Your task to perform on an android device: open app "Microsoft Authenticator" (install if not already installed) Image 0: 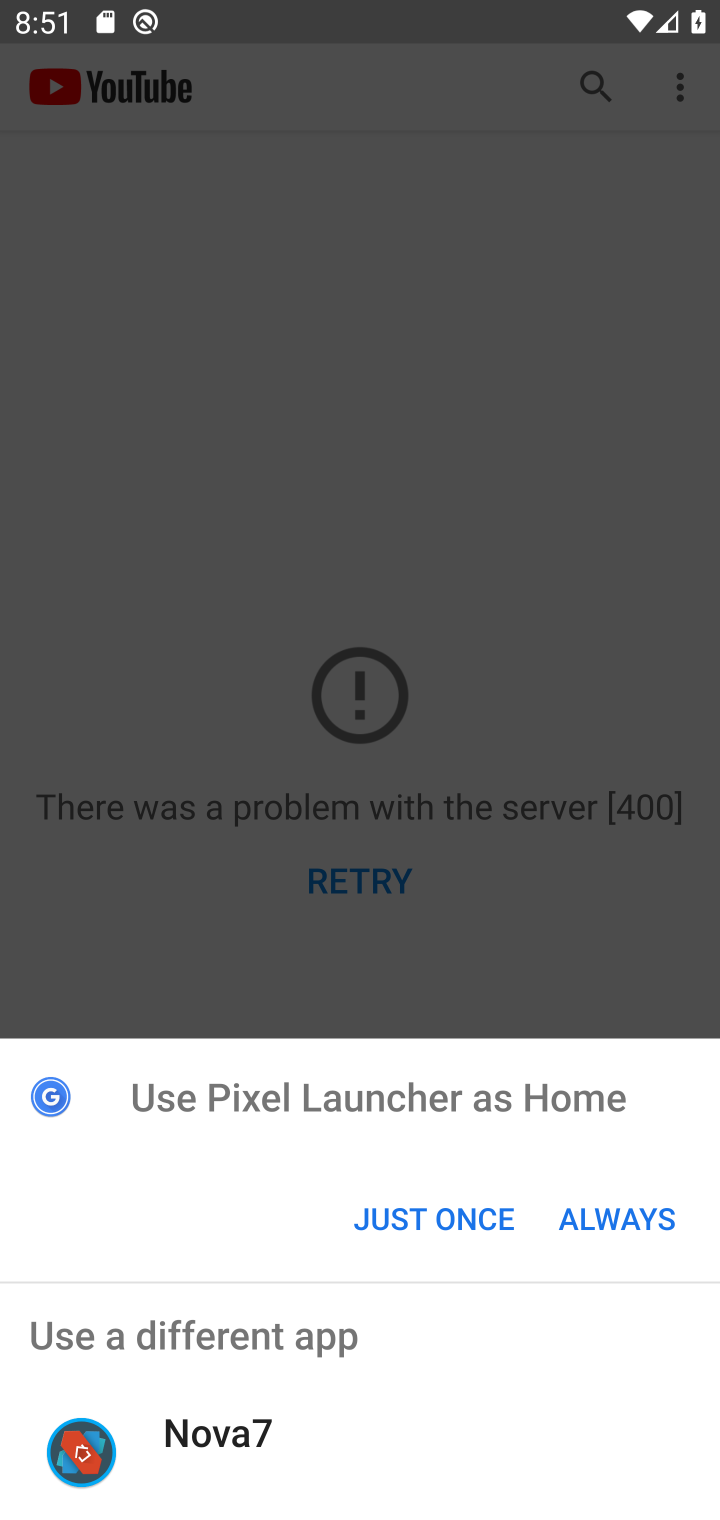
Step 0: click (653, 936)
Your task to perform on an android device: open app "Microsoft Authenticator" (install if not already installed) Image 1: 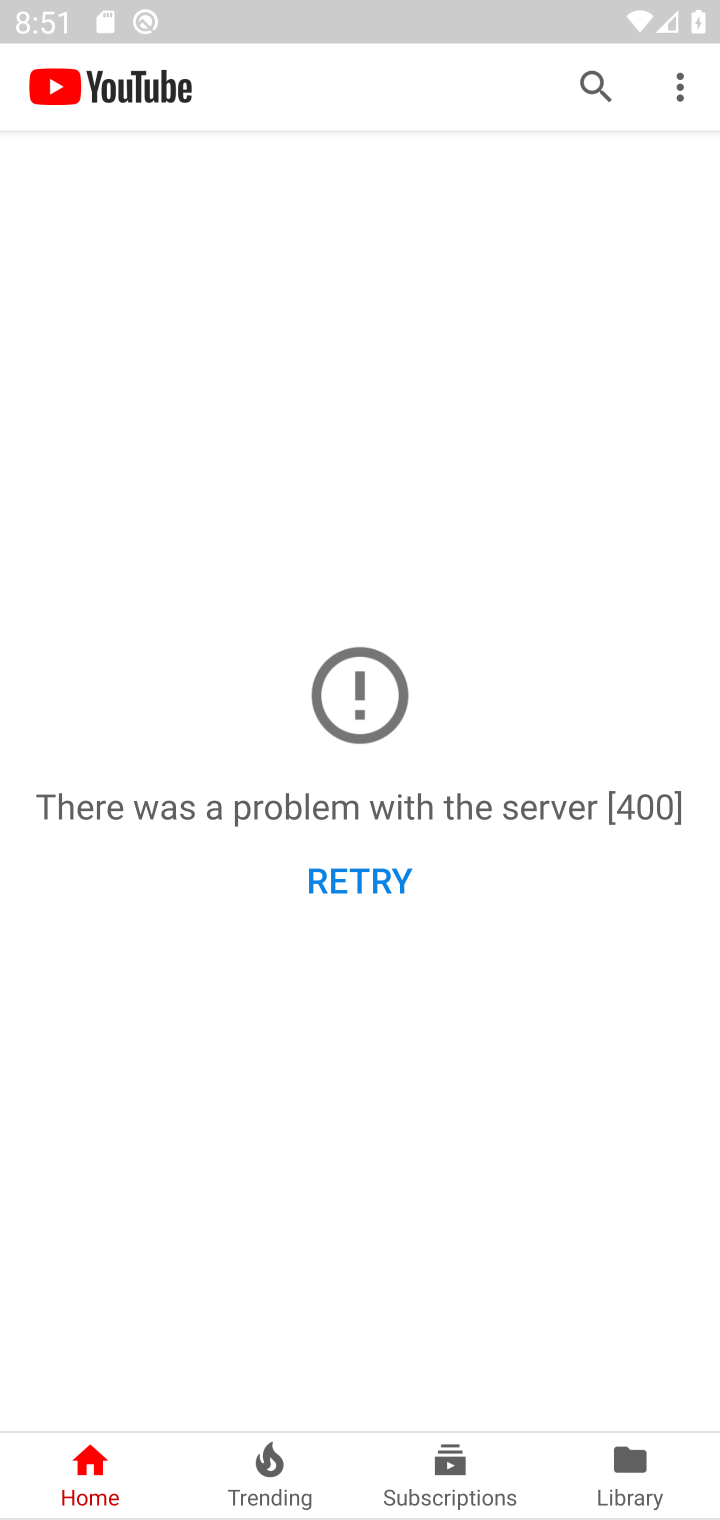
Step 1: press home button
Your task to perform on an android device: open app "Microsoft Authenticator" (install if not already installed) Image 2: 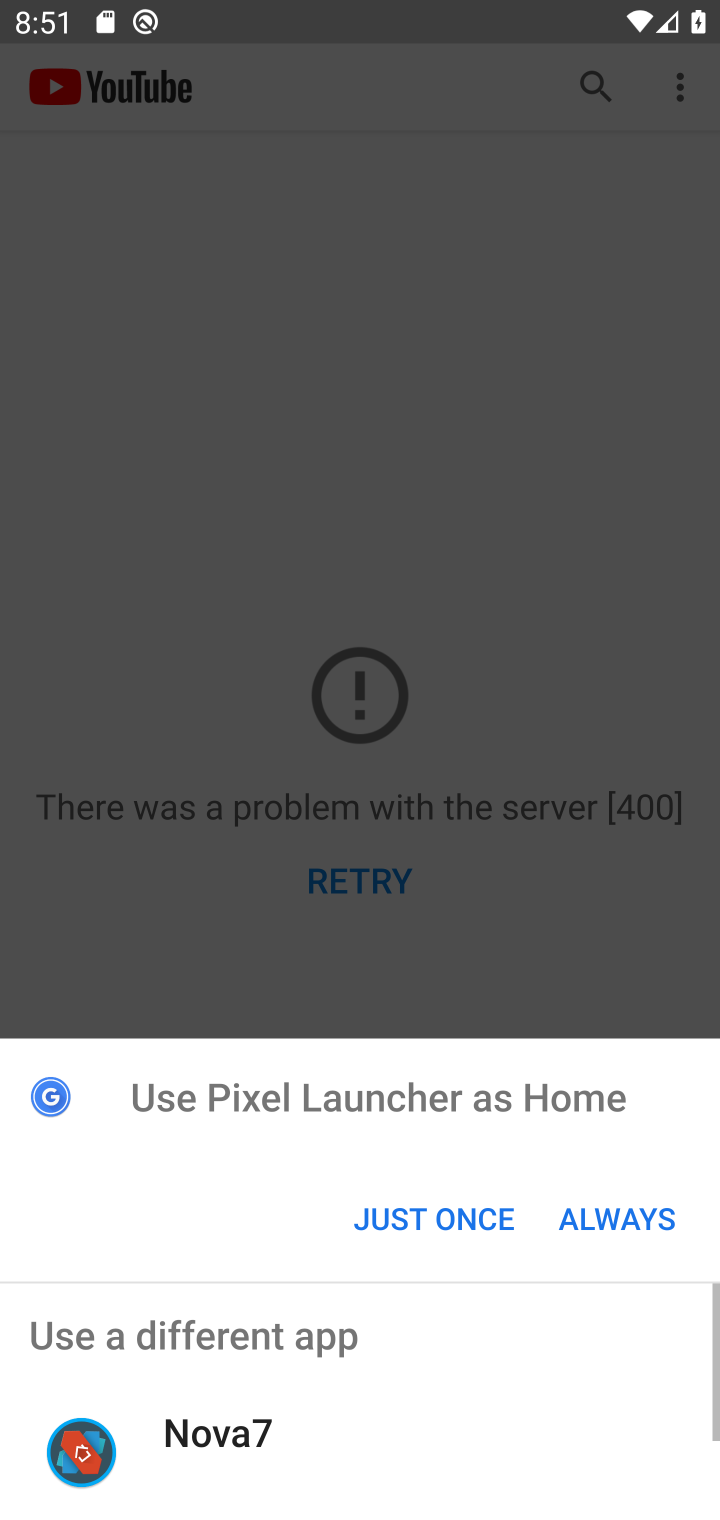
Step 2: press home button
Your task to perform on an android device: open app "Microsoft Authenticator" (install if not already installed) Image 3: 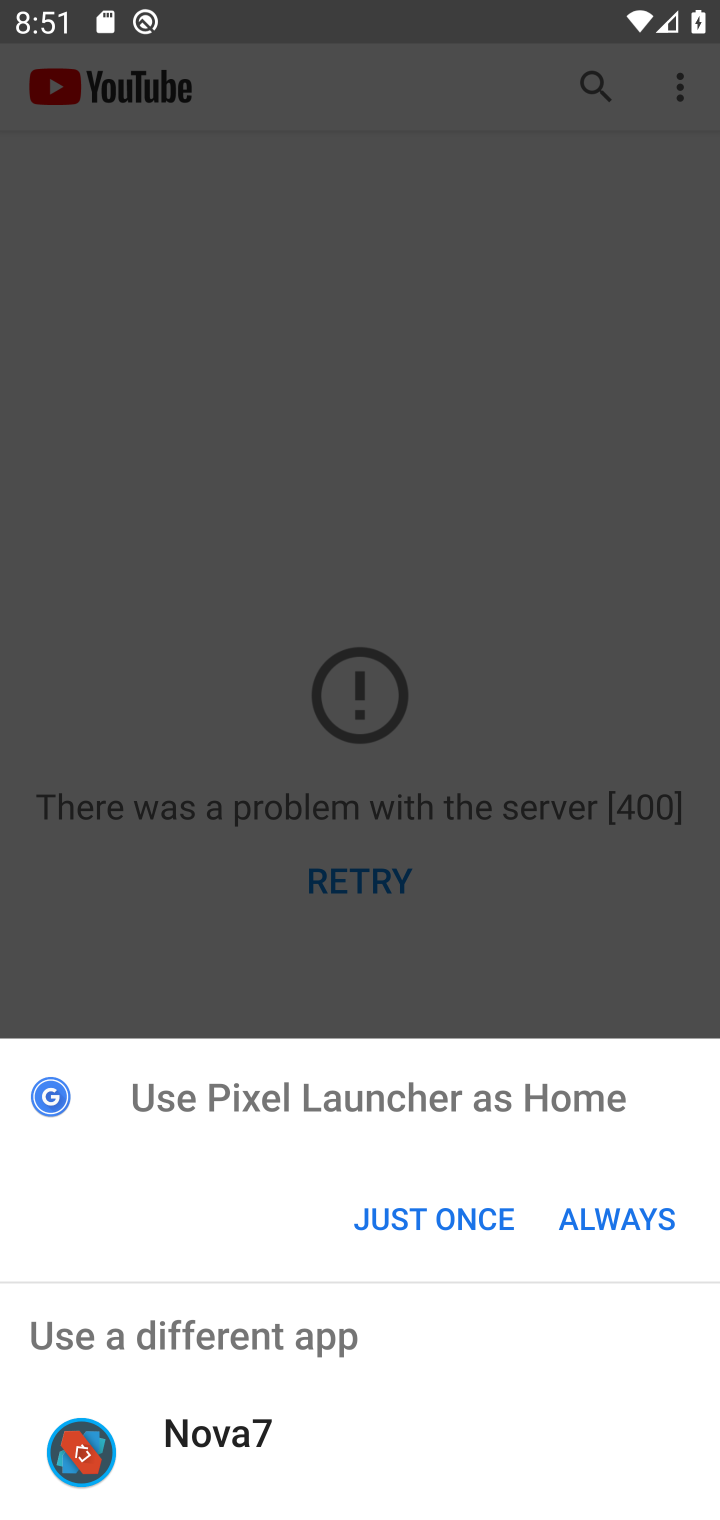
Step 3: press home button
Your task to perform on an android device: open app "Microsoft Authenticator" (install if not already installed) Image 4: 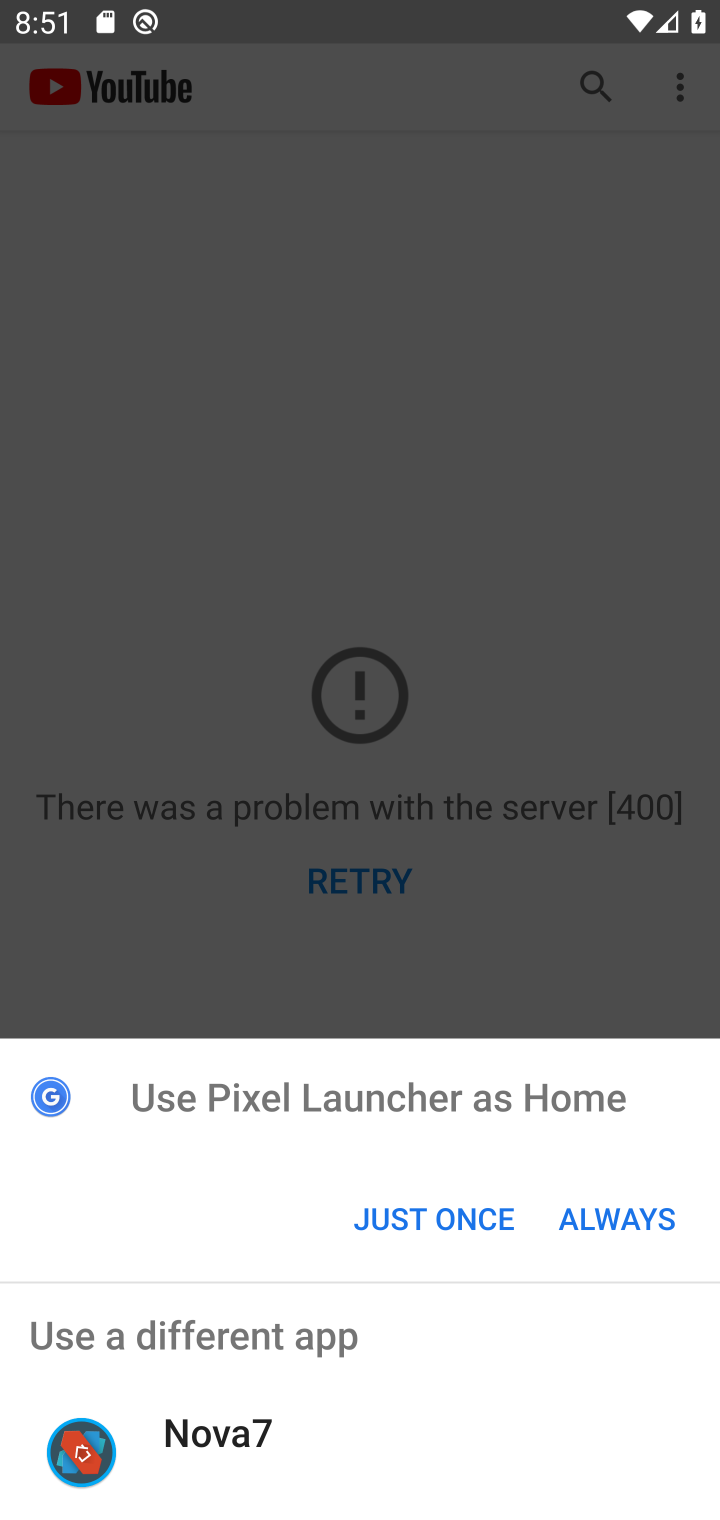
Step 4: click (490, 1222)
Your task to perform on an android device: open app "Microsoft Authenticator" (install if not already installed) Image 5: 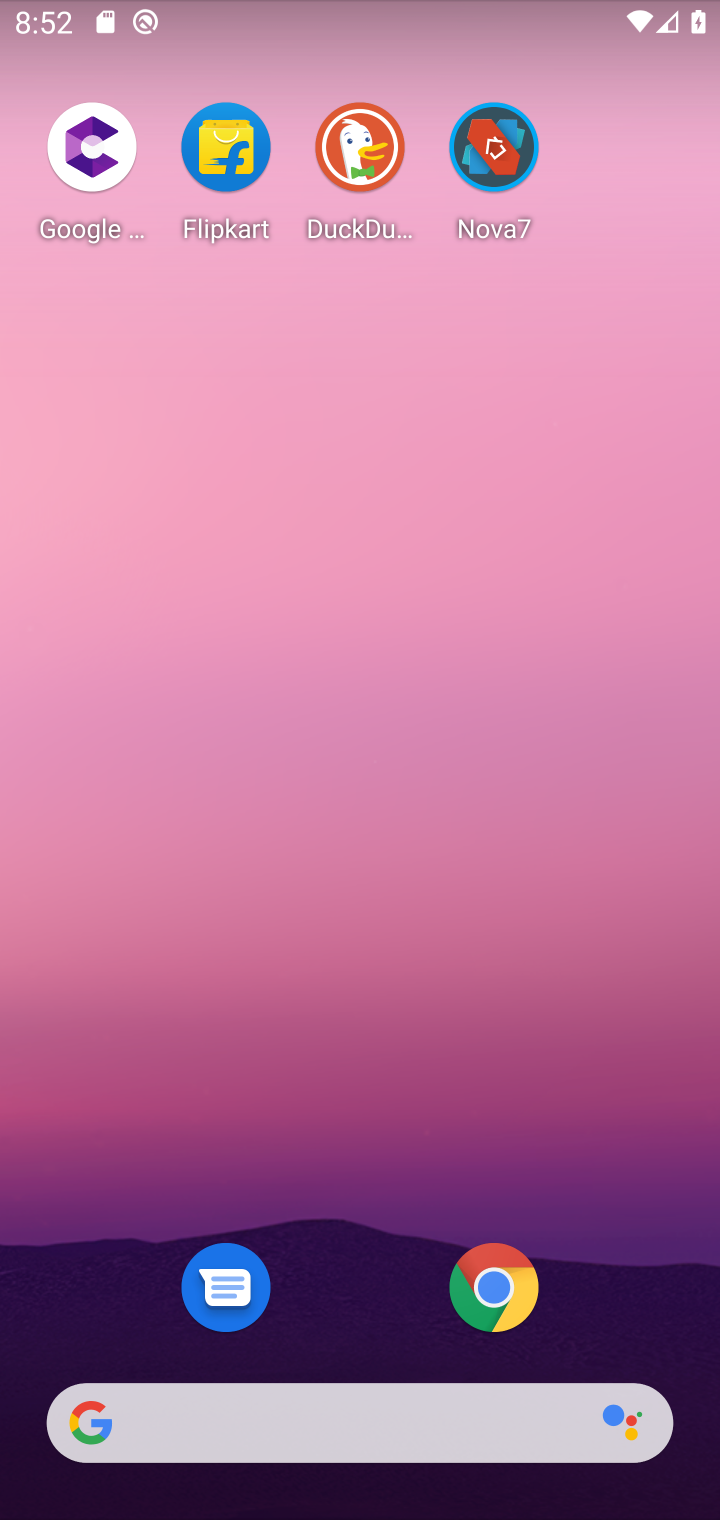
Step 5: drag from (343, 1144) to (307, 199)
Your task to perform on an android device: open app "Microsoft Authenticator" (install if not already installed) Image 6: 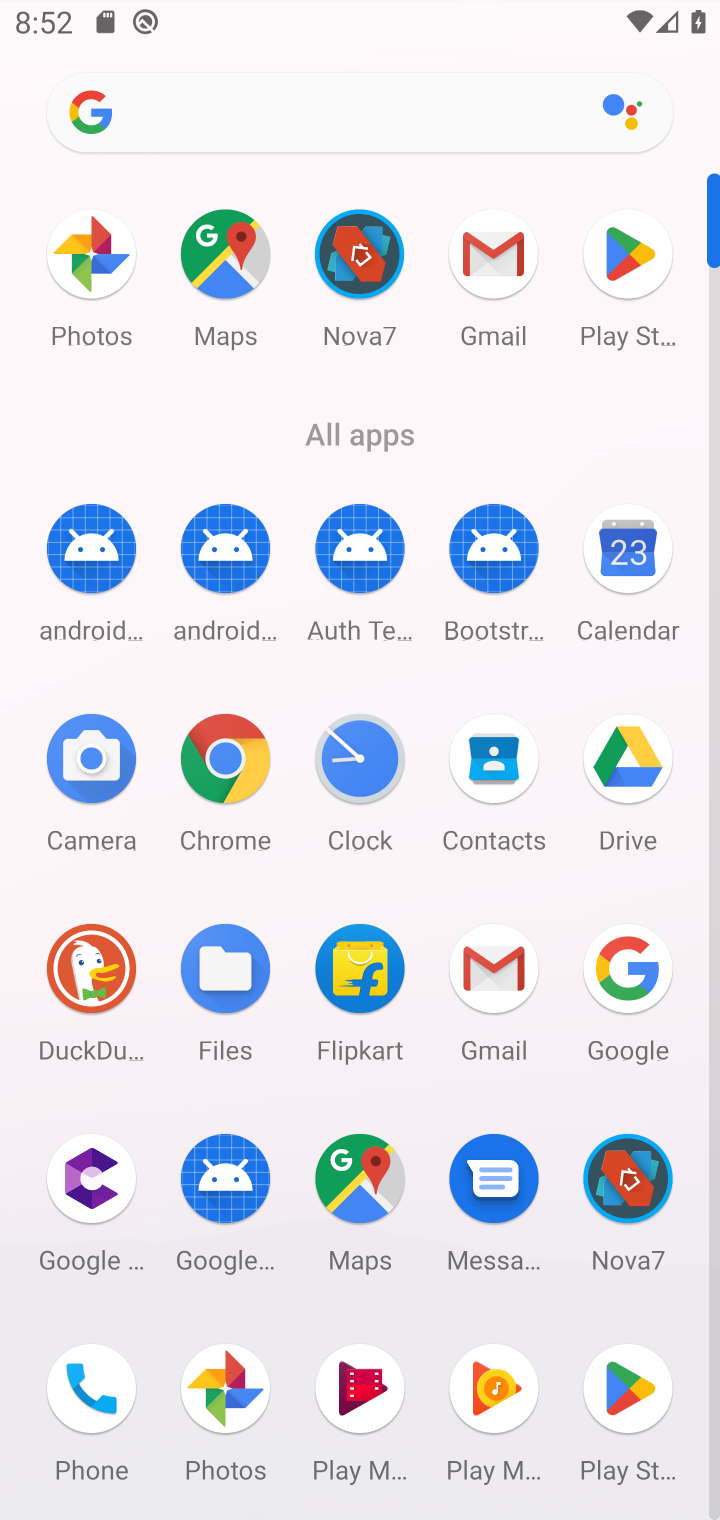
Step 6: click (637, 263)
Your task to perform on an android device: open app "Microsoft Authenticator" (install if not already installed) Image 7: 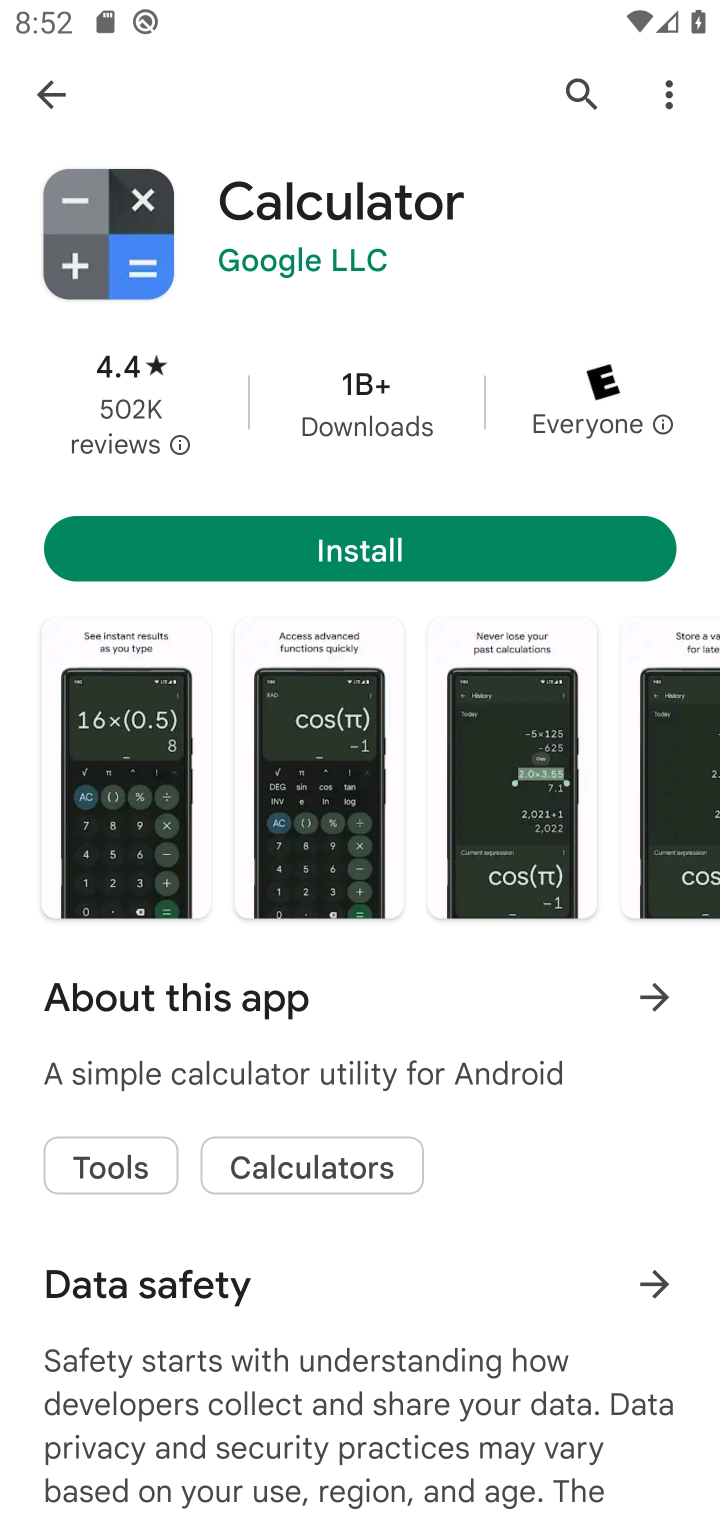
Step 7: click (584, 92)
Your task to perform on an android device: open app "Microsoft Authenticator" (install if not already installed) Image 8: 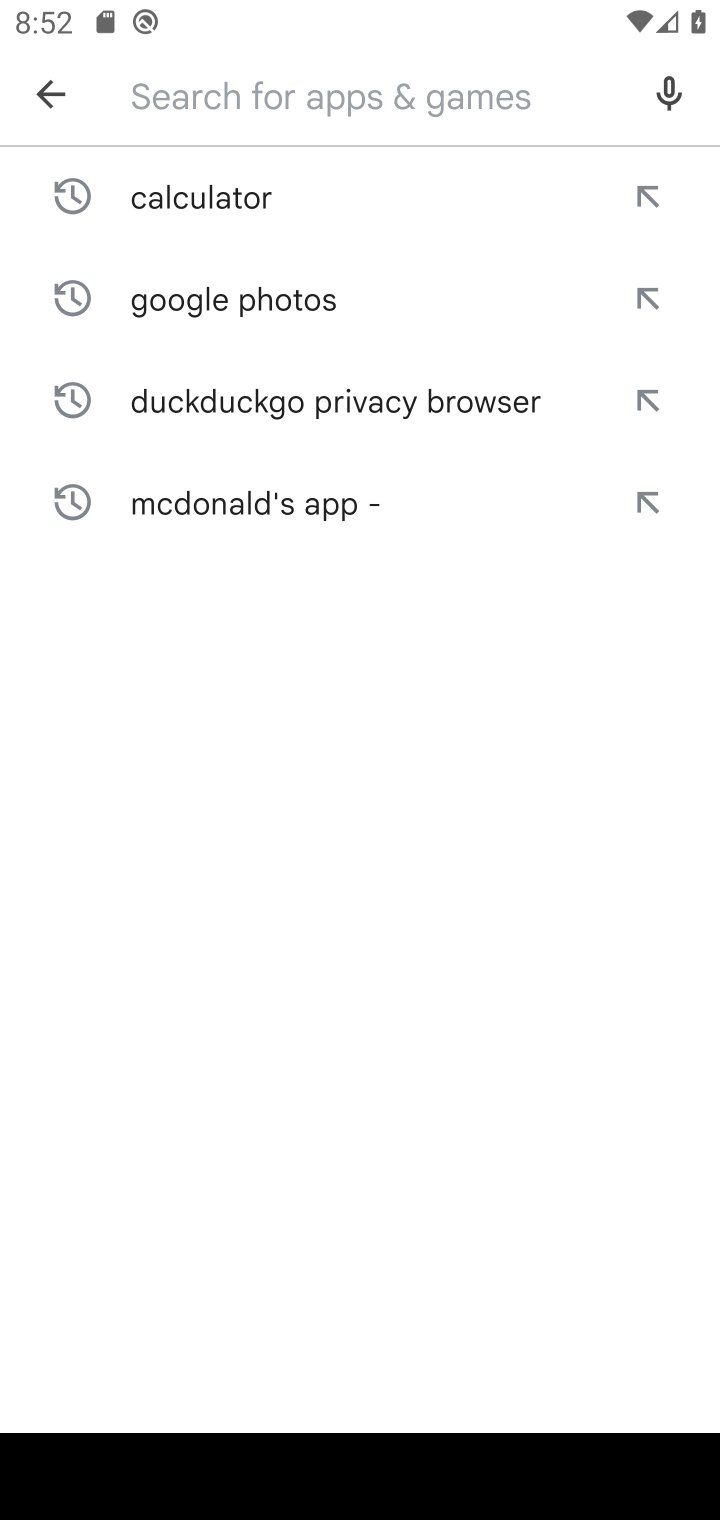
Step 8: type "Microsoft Authenticato"
Your task to perform on an android device: open app "Microsoft Authenticator" (install if not already installed) Image 9: 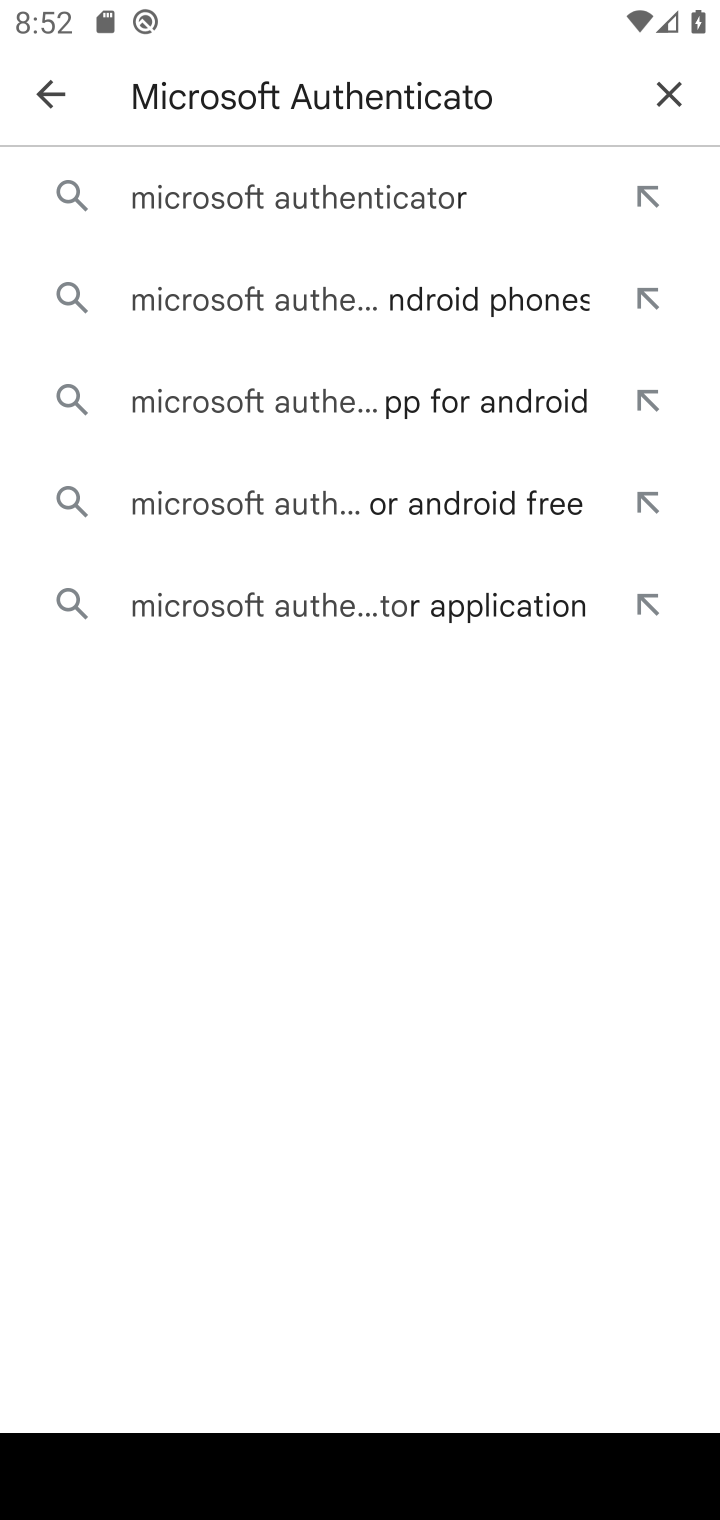
Step 9: click (342, 200)
Your task to perform on an android device: open app "Microsoft Authenticator" (install if not already installed) Image 10: 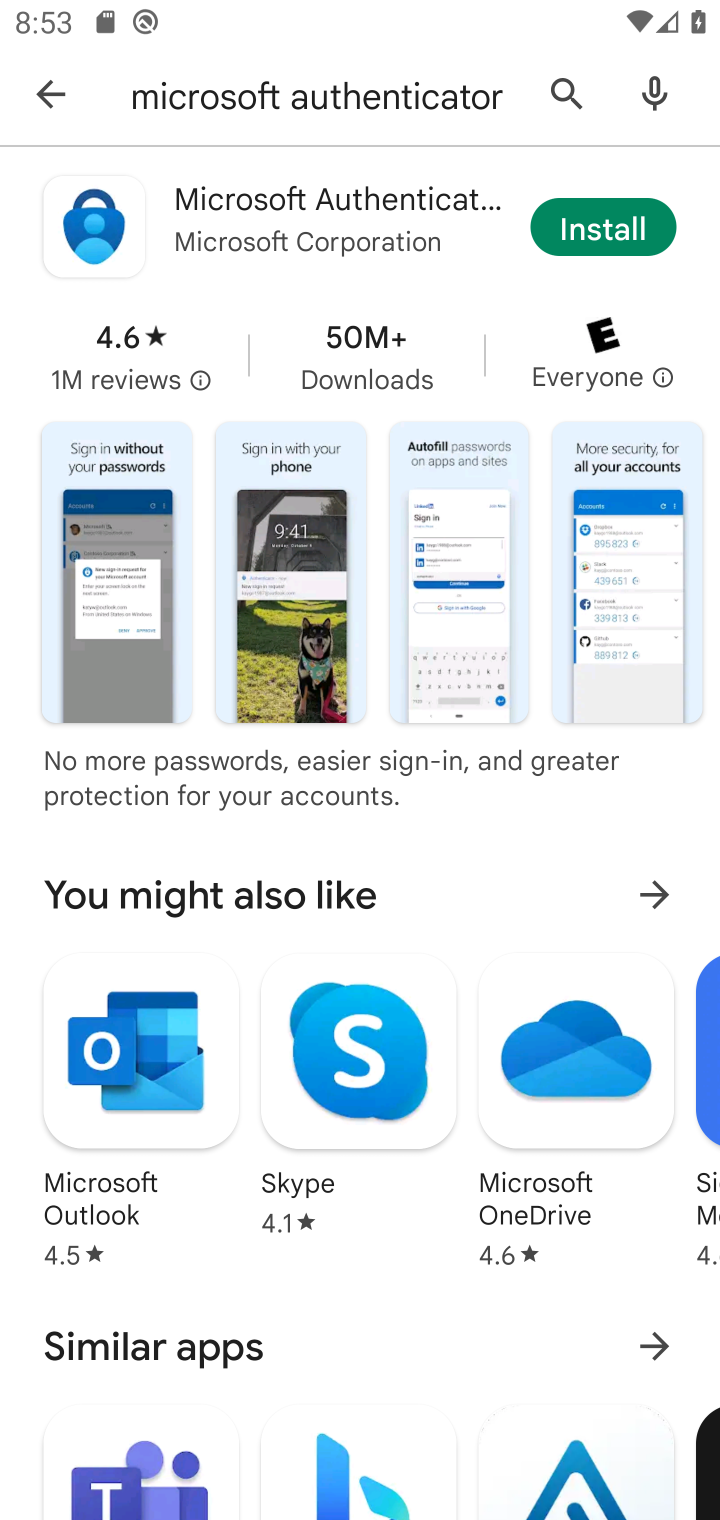
Step 10: click (613, 238)
Your task to perform on an android device: open app "Microsoft Authenticator" (install if not already installed) Image 11: 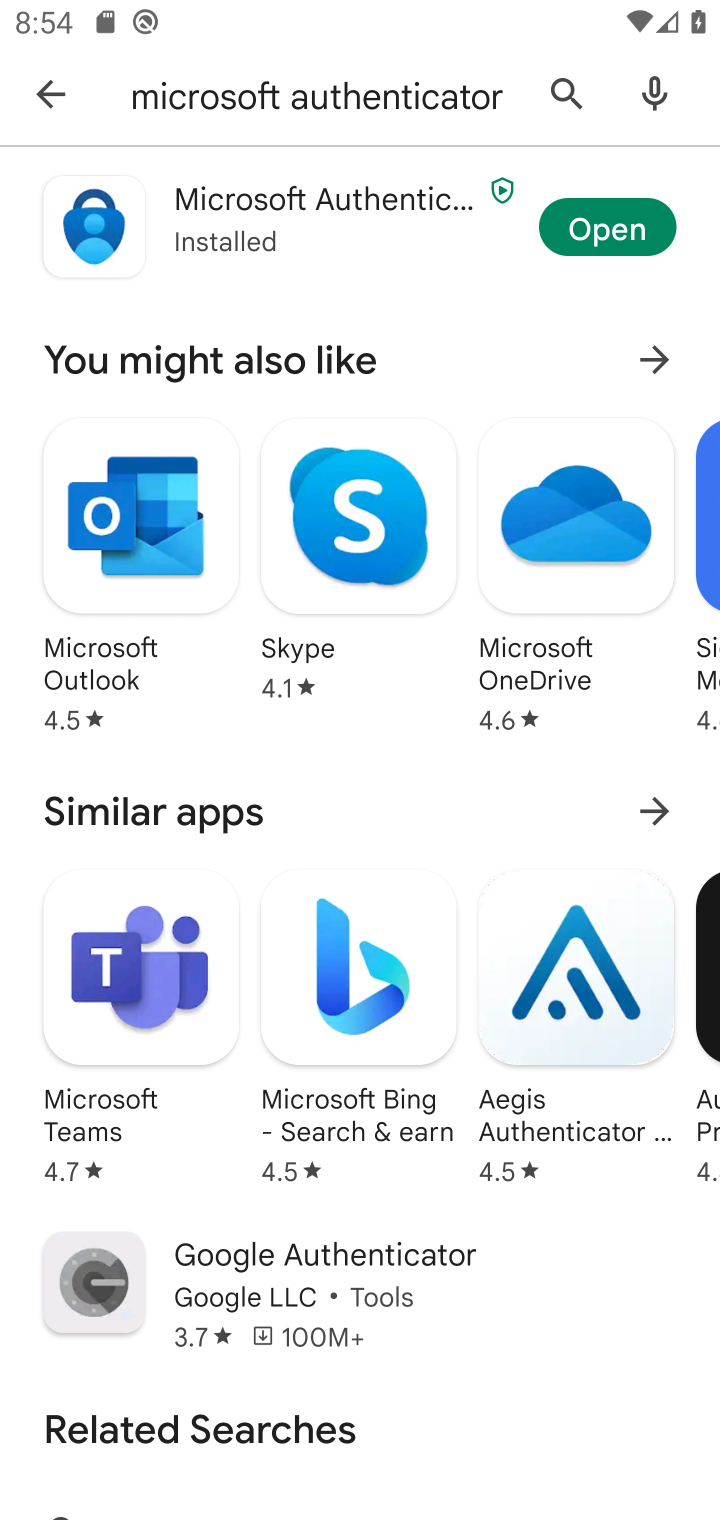
Step 11: click (591, 234)
Your task to perform on an android device: open app "Microsoft Authenticator" (install if not already installed) Image 12: 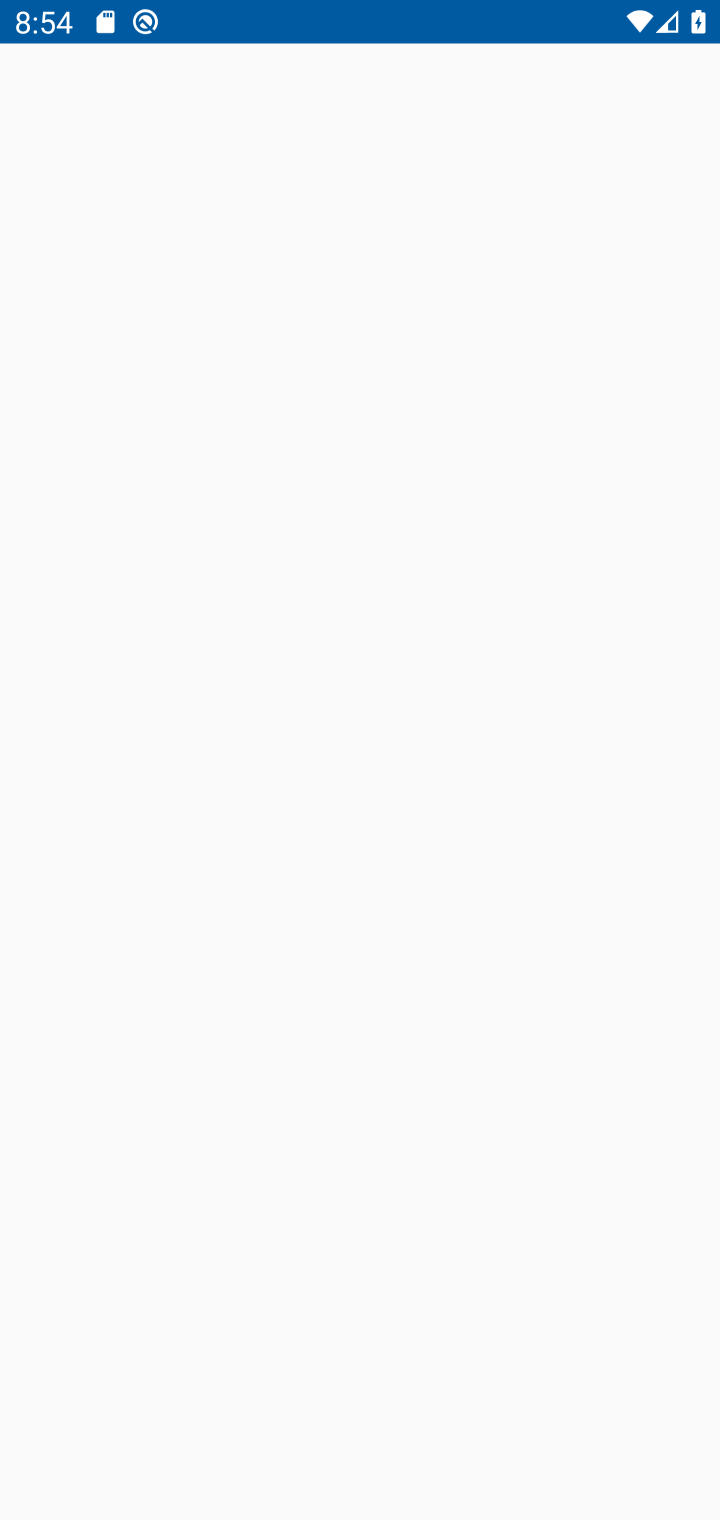
Step 12: task complete